Your task to perform on an android device: check storage Image 0: 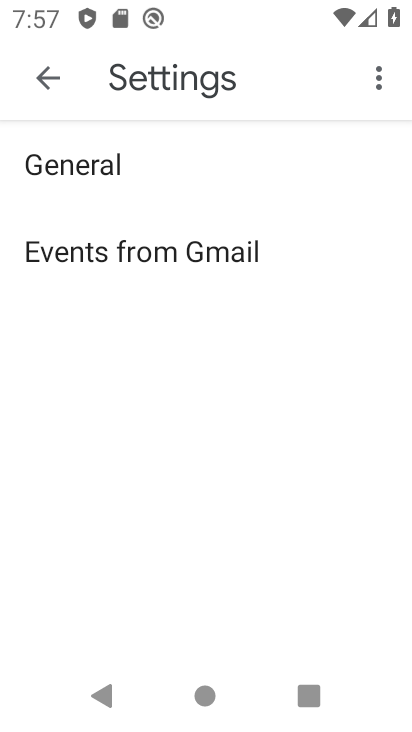
Step 0: press back button
Your task to perform on an android device: check storage Image 1: 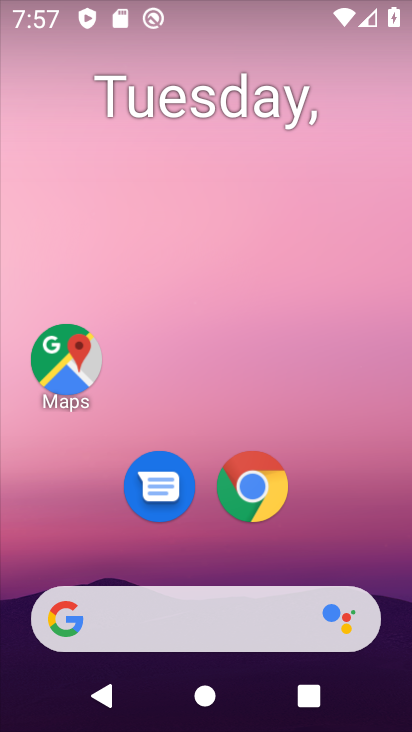
Step 1: drag from (212, 452) to (201, 75)
Your task to perform on an android device: check storage Image 2: 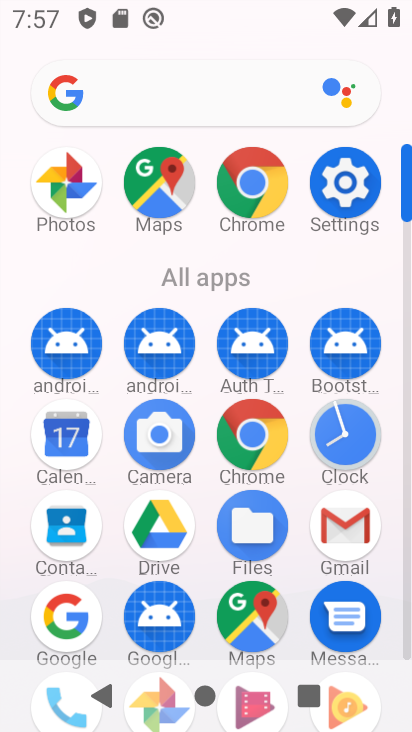
Step 2: click (323, 198)
Your task to perform on an android device: check storage Image 3: 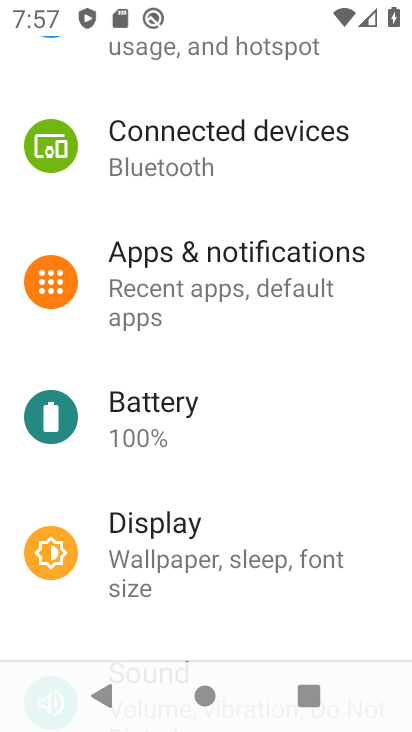
Step 3: drag from (225, 547) to (270, 96)
Your task to perform on an android device: check storage Image 4: 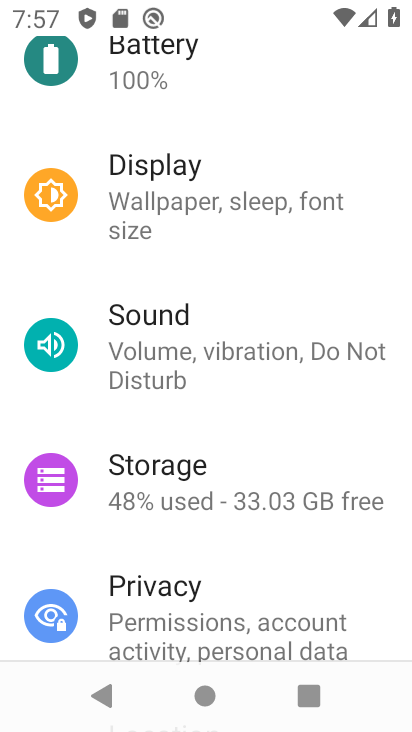
Step 4: drag from (255, 539) to (279, 92)
Your task to perform on an android device: check storage Image 5: 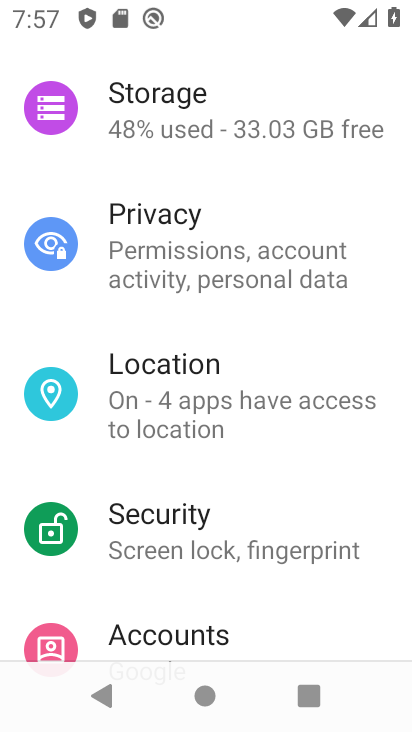
Step 5: drag from (258, 582) to (267, 100)
Your task to perform on an android device: check storage Image 6: 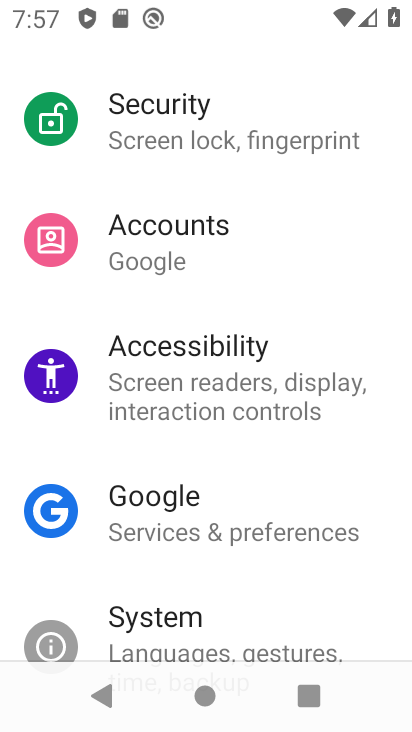
Step 6: drag from (310, 579) to (288, 151)
Your task to perform on an android device: check storage Image 7: 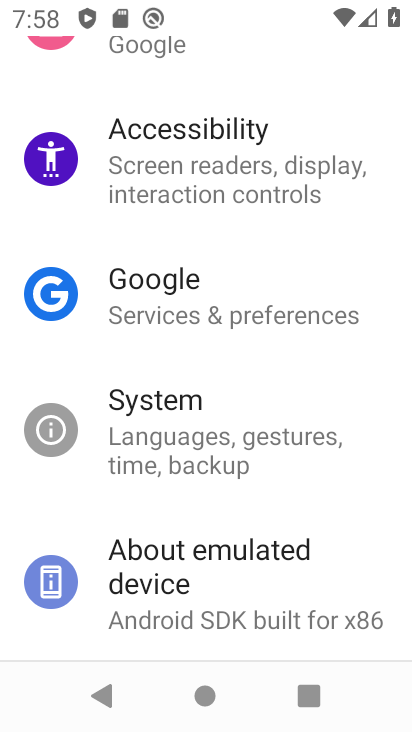
Step 7: drag from (274, 191) to (306, 589)
Your task to perform on an android device: check storage Image 8: 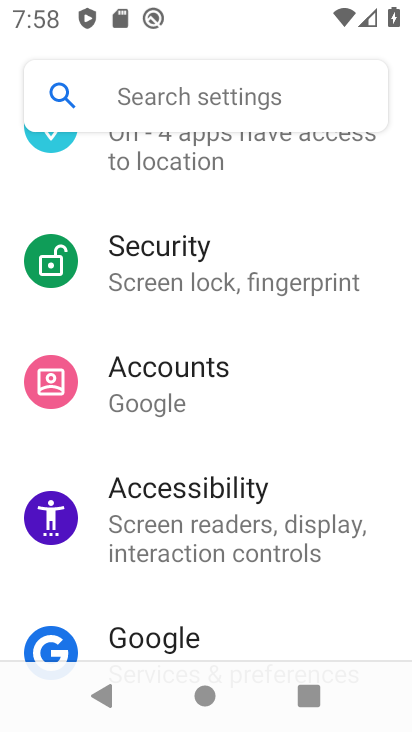
Step 8: drag from (295, 242) to (297, 642)
Your task to perform on an android device: check storage Image 9: 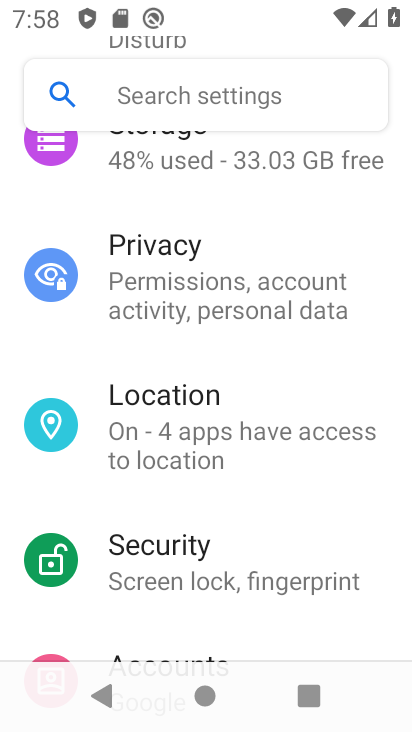
Step 9: drag from (289, 237) to (311, 647)
Your task to perform on an android device: check storage Image 10: 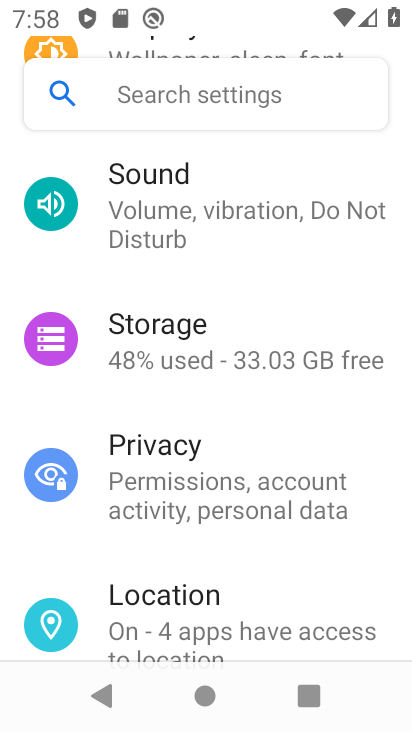
Step 10: click (254, 365)
Your task to perform on an android device: check storage Image 11: 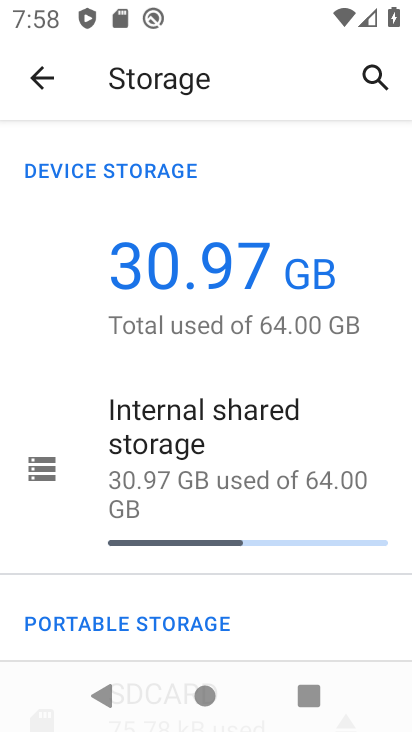
Step 11: click (320, 272)
Your task to perform on an android device: check storage Image 12: 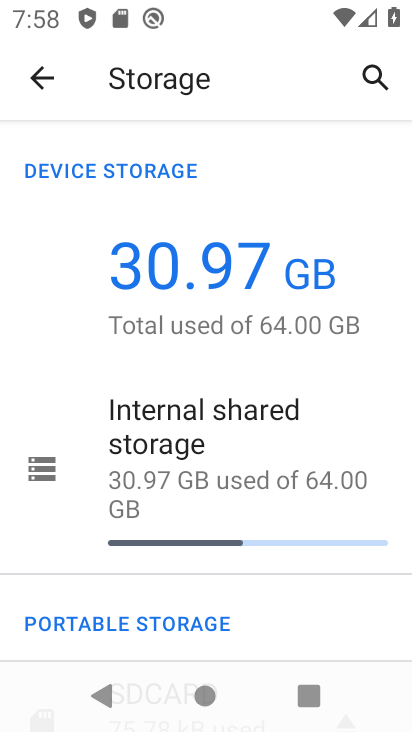
Step 12: click (321, 465)
Your task to perform on an android device: check storage Image 13: 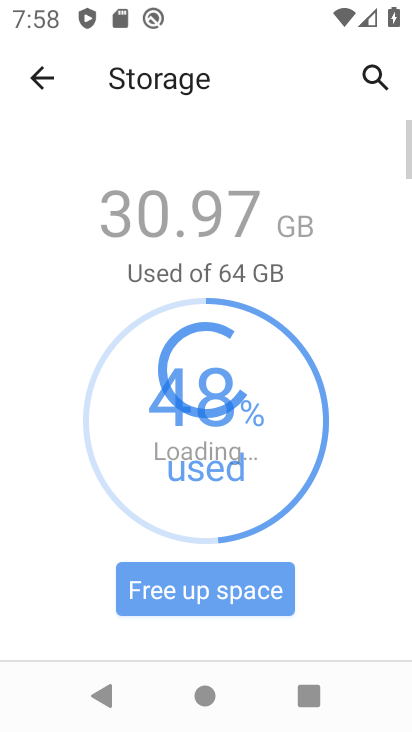
Step 13: task complete